Your task to perform on an android device: Find coffee shops on Maps Image 0: 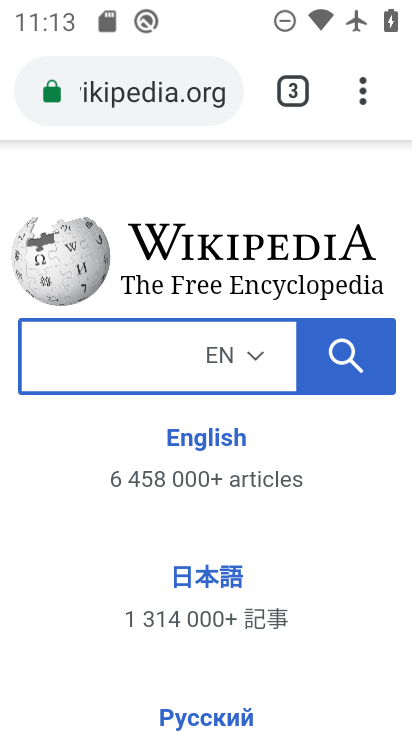
Step 0: press home button
Your task to perform on an android device: Find coffee shops on Maps Image 1: 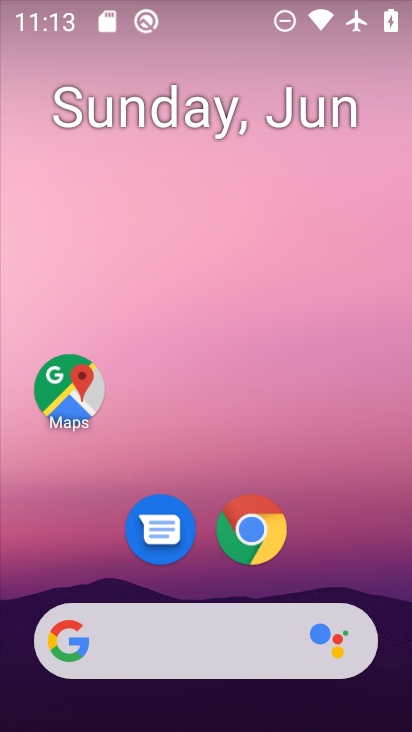
Step 1: click (71, 390)
Your task to perform on an android device: Find coffee shops on Maps Image 2: 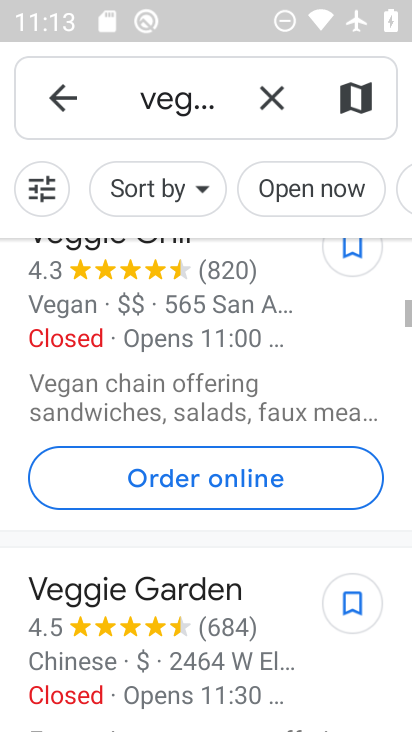
Step 2: click (270, 98)
Your task to perform on an android device: Find coffee shops on Maps Image 3: 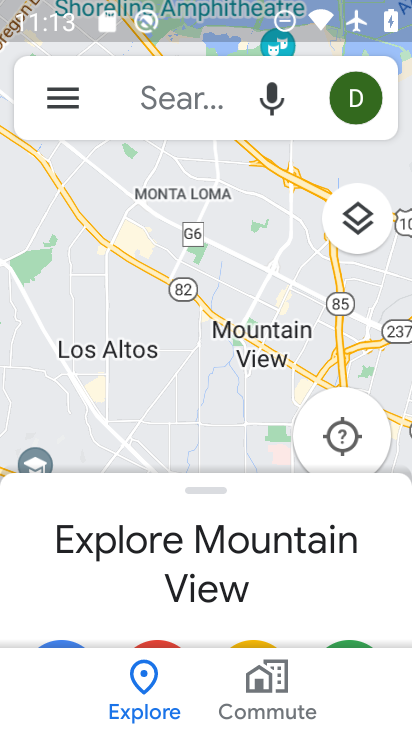
Step 3: click (167, 104)
Your task to perform on an android device: Find coffee shops on Maps Image 4: 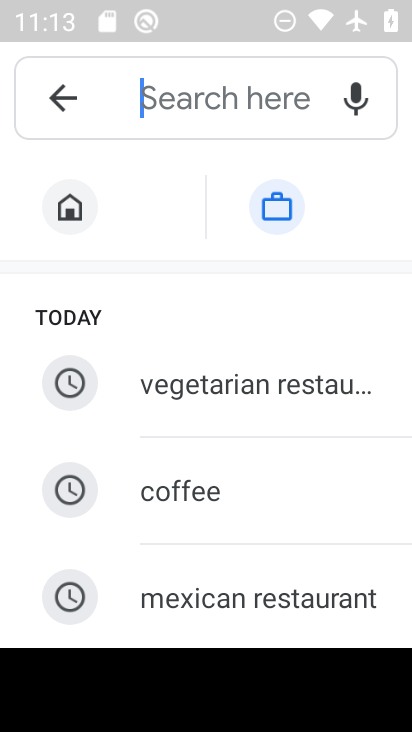
Step 4: type "coffee shop"
Your task to perform on an android device: Find coffee shops on Maps Image 5: 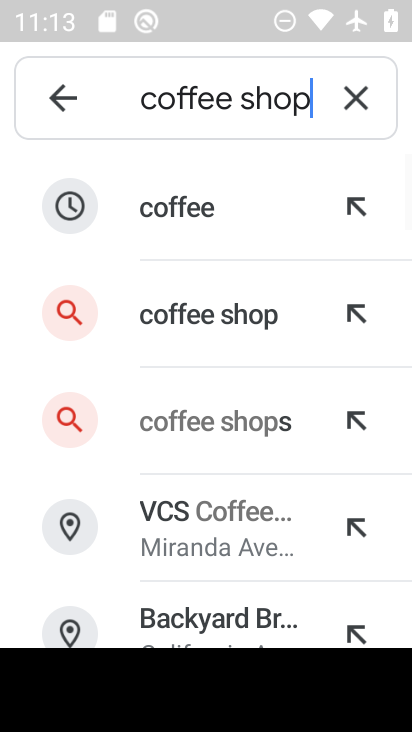
Step 5: click (228, 298)
Your task to perform on an android device: Find coffee shops on Maps Image 6: 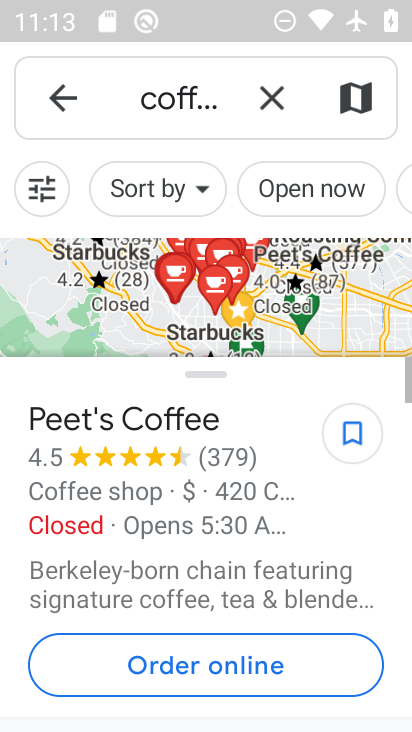
Step 6: task complete